Your task to perform on an android device: turn on the 12-hour format for clock Image 0: 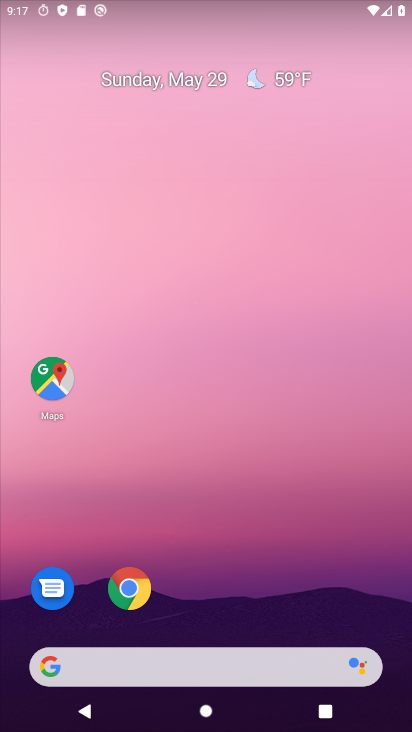
Step 0: drag from (218, 636) to (242, 143)
Your task to perform on an android device: turn on the 12-hour format for clock Image 1: 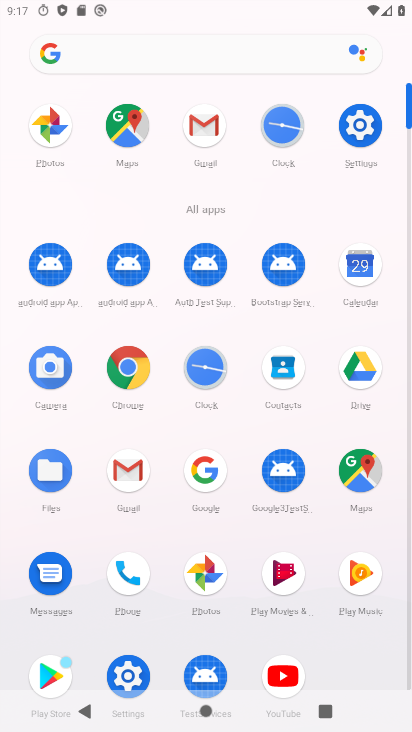
Step 1: click (214, 372)
Your task to perform on an android device: turn on the 12-hour format for clock Image 2: 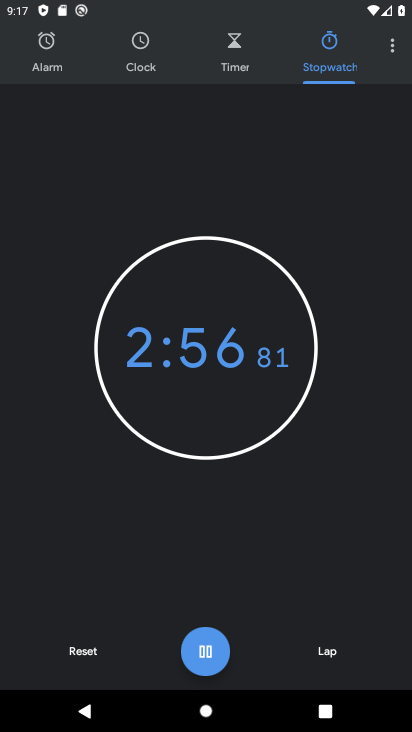
Step 2: press home button
Your task to perform on an android device: turn on the 12-hour format for clock Image 3: 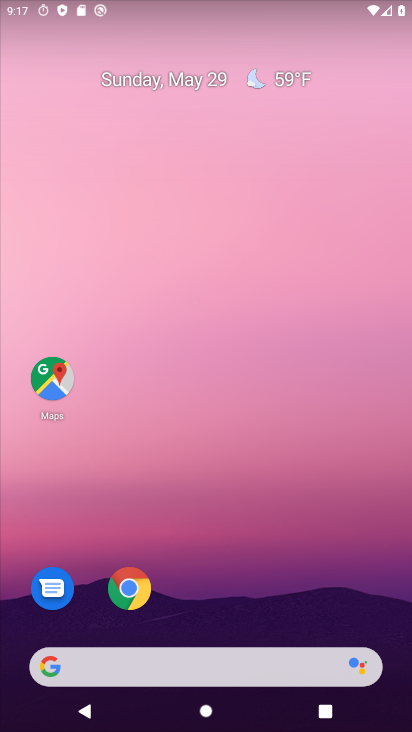
Step 3: drag from (244, 620) to (219, 8)
Your task to perform on an android device: turn on the 12-hour format for clock Image 4: 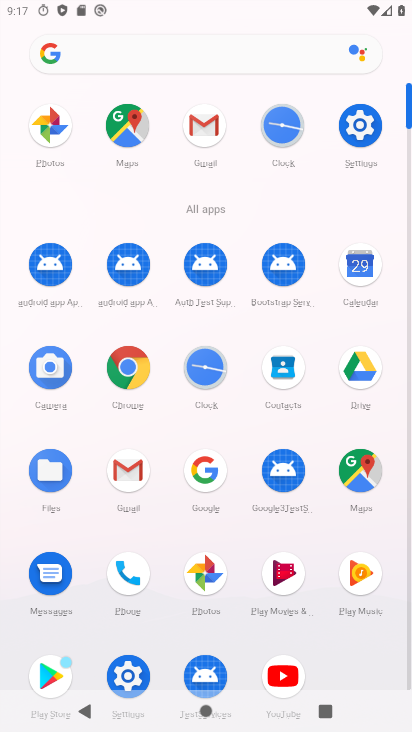
Step 4: click (358, 147)
Your task to perform on an android device: turn on the 12-hour format for clock Image 5: 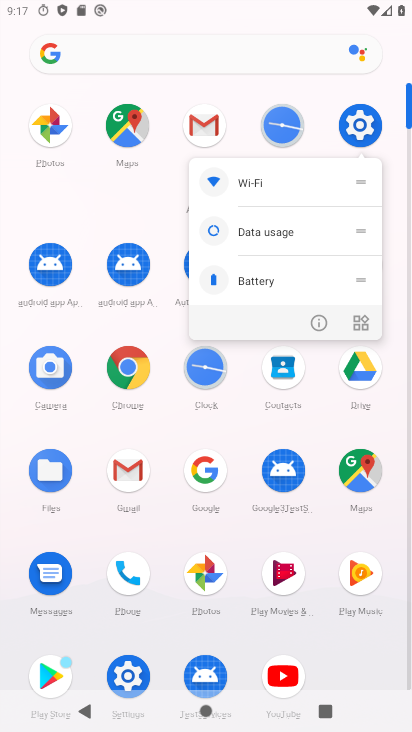
Step 5: click (373, 124)
Your task to perform on an android device: turn on the 12-hour format for clock Image 6: 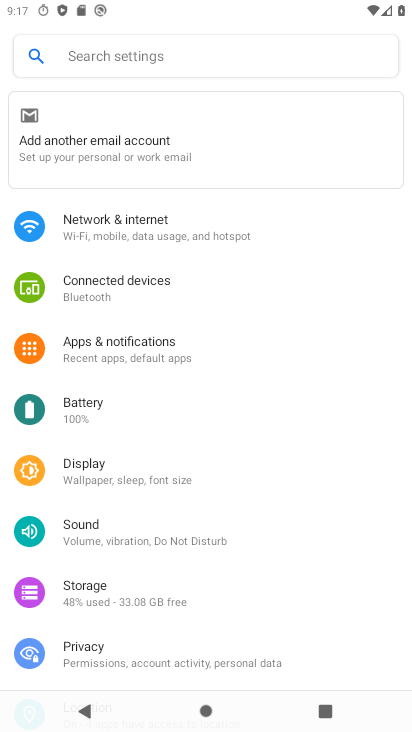
Step 6: drag from (174, 591) to (212, 135)
Your task to perform on an android device: turn on the 12-hour format for clock Image 7: 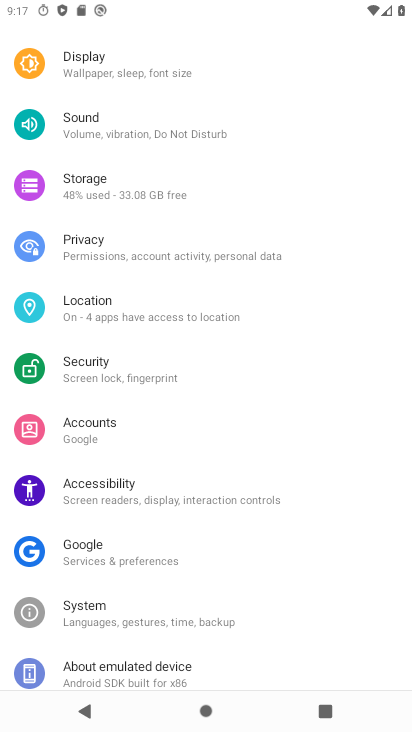
Step 7: click (108, 619)
Your task to perform on an android device: turn on the 12-hour format for clock Image 8: 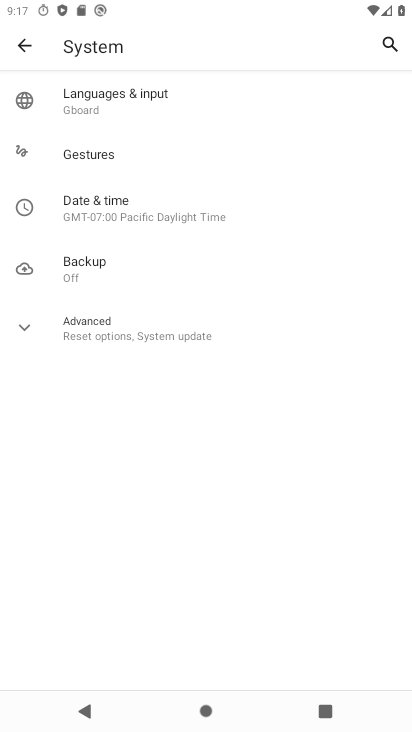
Step 8: click (114, 214)
Your task to perform on an android device: turn on the 12-hour format for clock Image 9: 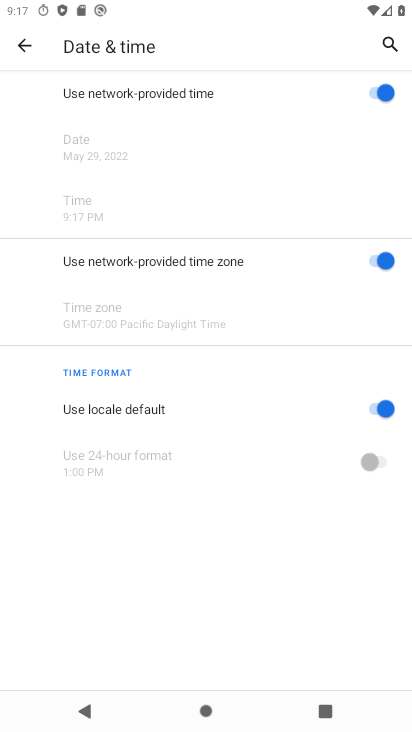
Step 9: task complete